Your task to perform on an android device: Open maps Image 0: 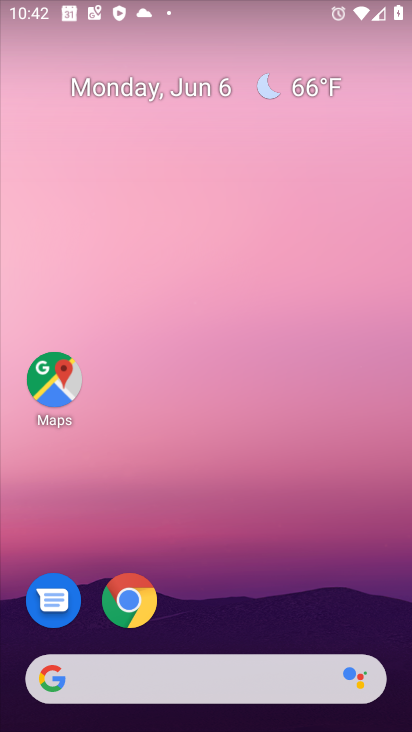
Step 0: press home button
Your task to perform on an android device: Open maps Image 1: 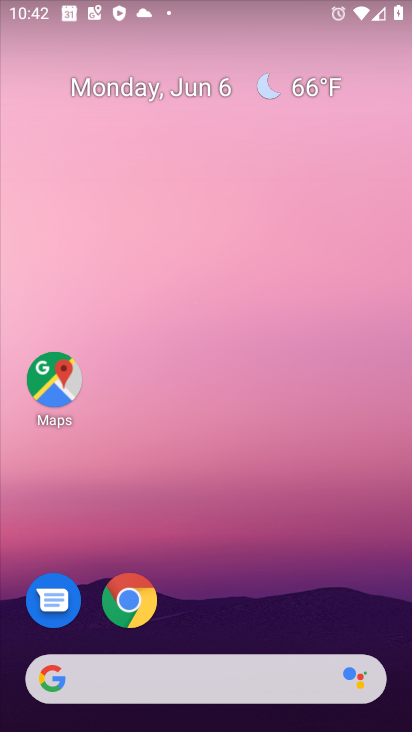
Step 1: click (47, 401)
Your task to perform on an android device: Open maps Image 2: 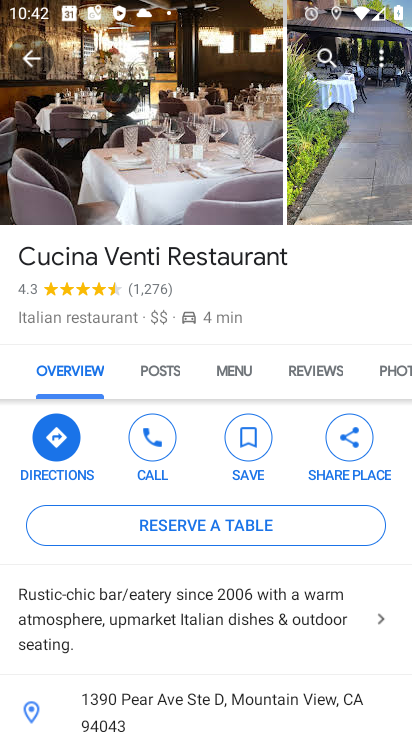
Step 2: click (41, 54)
Your task to perform on an android device: Open maps Image 3: 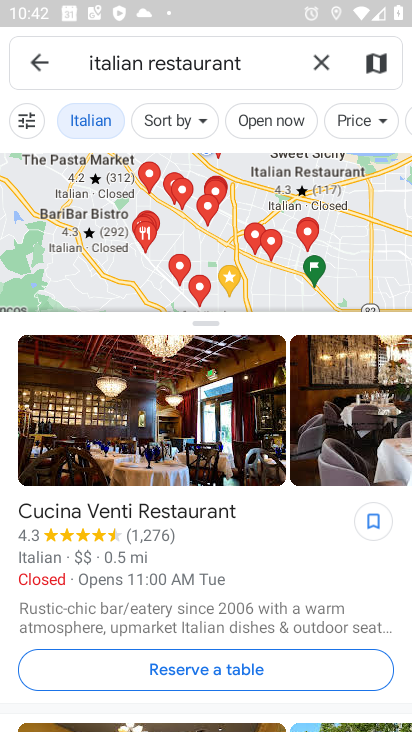
Step 3: click (38, 54)
Your task to perform on an android device: Open maps Image 4: 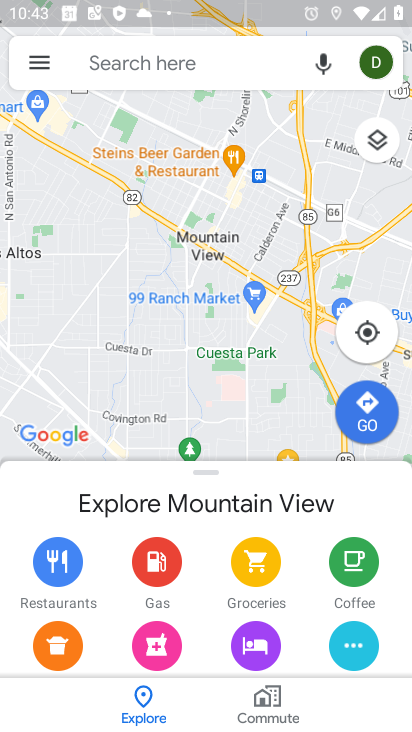
Step 4: task complete